Your task to perform on an android device: turn on the 24-hour format for clock Image 0: 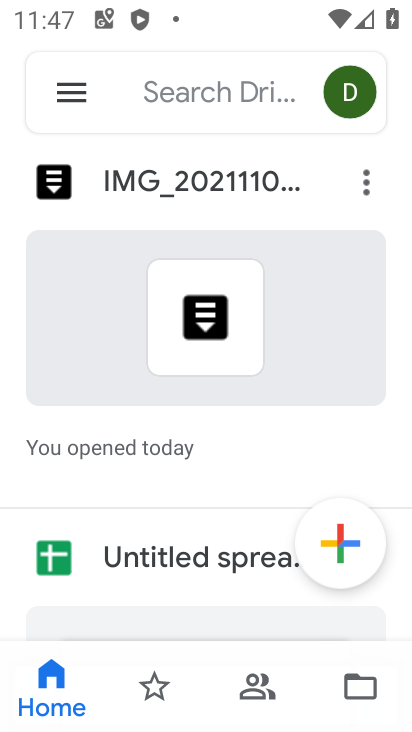
Step 0: press home button
Your task to perform on an android device: turn on the 24-hour format for clock Image 1: 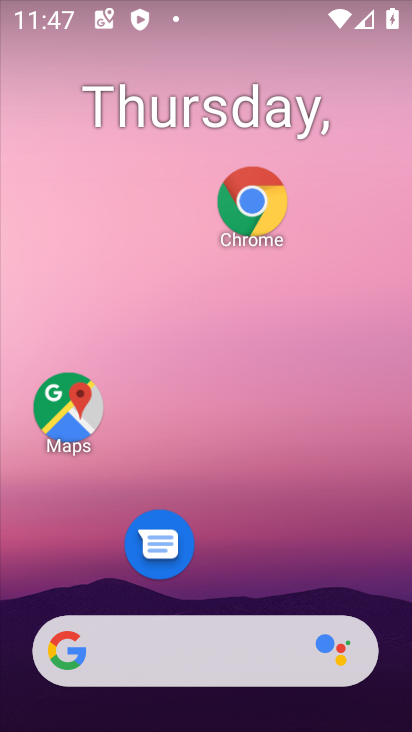
Step 1: drag from (223, 576) to (255, 54)
Your task to perform on an android device: turn on the 24-hour format for clock Image 2: 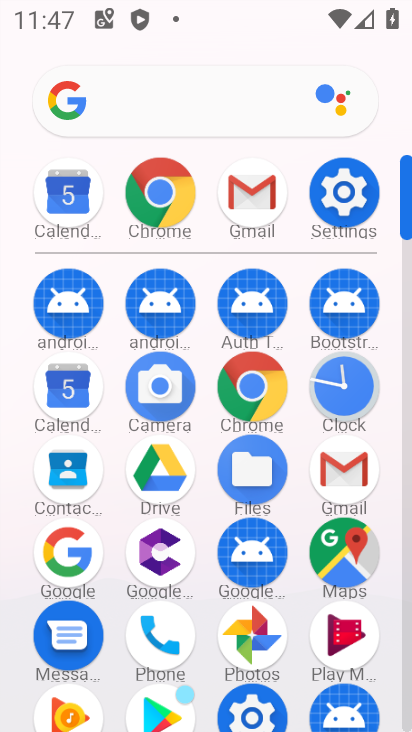
Step 2: click (344, 382)
Your task to perform on an android device: turn on the 24-hour format for clock Image 3: 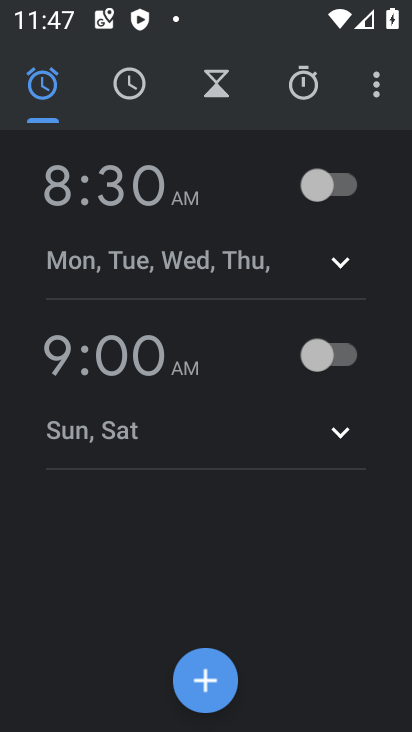
Step 3: click (375, 88)
Your task to perform on an android device: turn on the 24-hour format for clock Image 4: 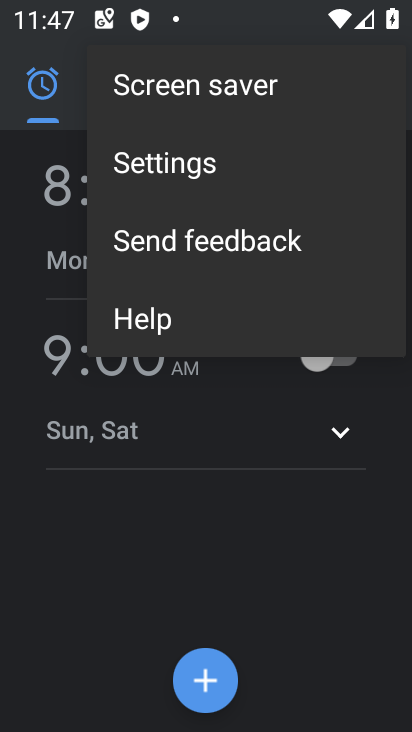
Step 4: click (241, 163)
Your task to perform on an android device: turn on the 24-hour format for clock Image 5: 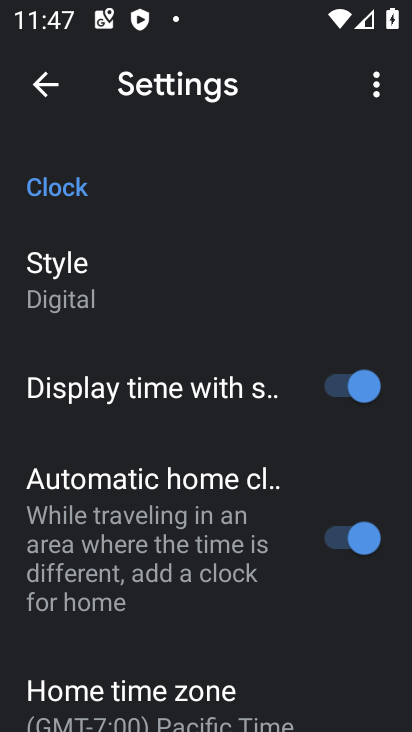
Step 5: drag from (206, 620) to (275, 175)
Your task to perform on an android device: turn on the 24-hour format for clock Image 6: 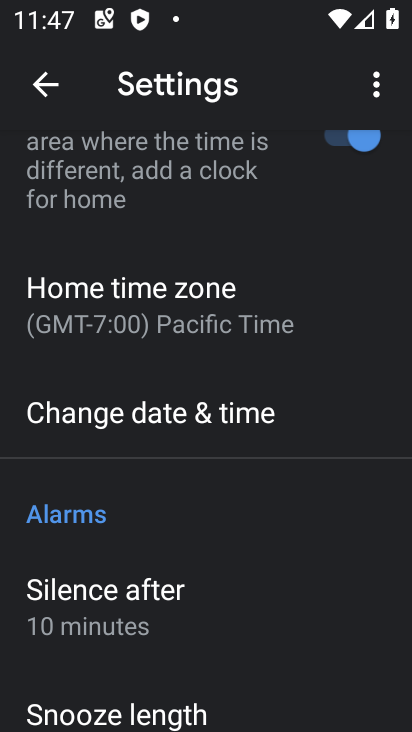
Step 6: click (295, 410)
Your task to perform on an android device: turn on the 24-hour format for clock Image 7: 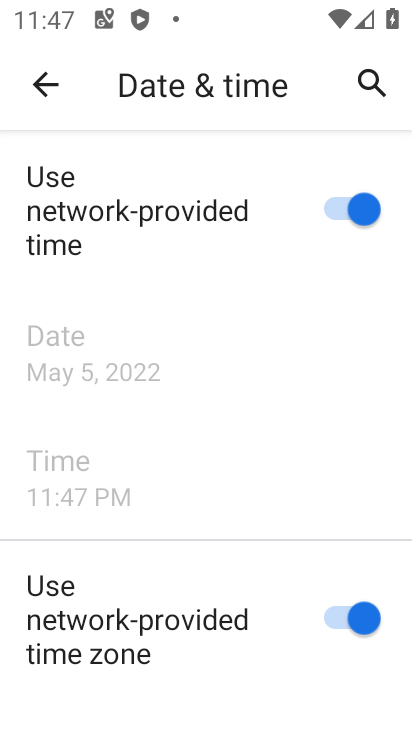
Step 7: drag from (231, 654) to (289, 265)
Your task to perform on an android device: turn on the 24-hour format for clock Image 8: 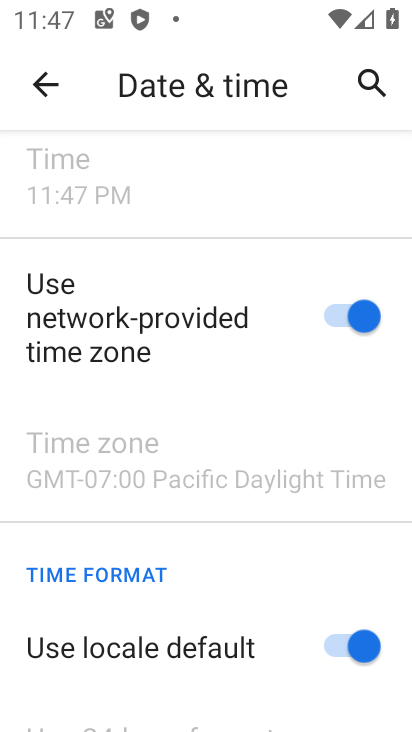
Step 8: drag from (252, 616) to (275, 272)
Your task to perform on an android device: turn on the 24-hour format for clock Image 9: 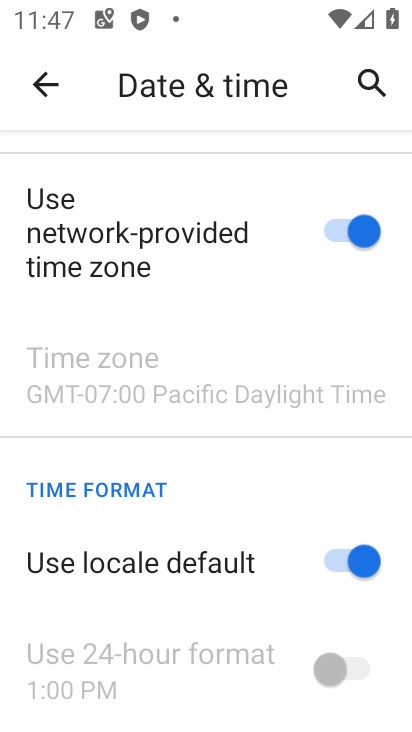
Step 9: click (336, 555)
Your task to perform on an android device: turn on the 24-hour format for clock Image 10: 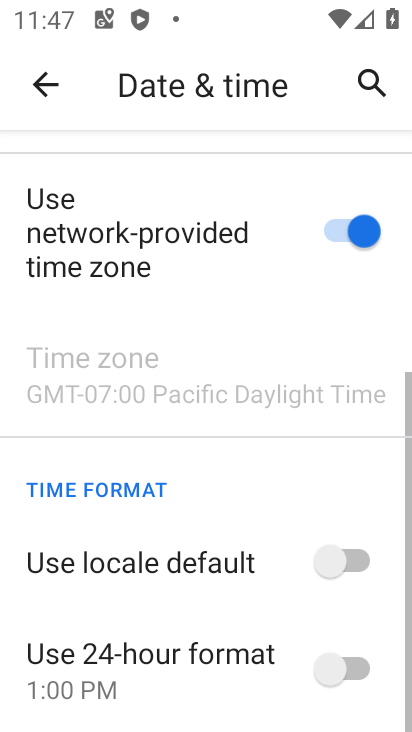
Step 10: click (350, 663)
Your task to perform on an android device: turn on the 24-hour format for clock Image 11: 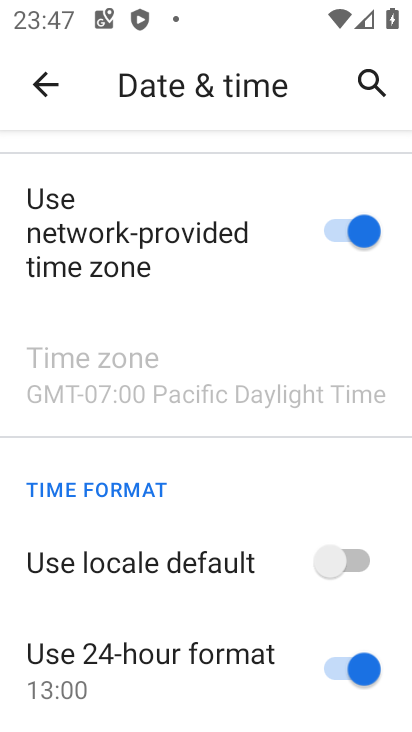
Step 11: task complete